Your task to perform on an android device: Search for Italian restaurants on Maps Image 0: 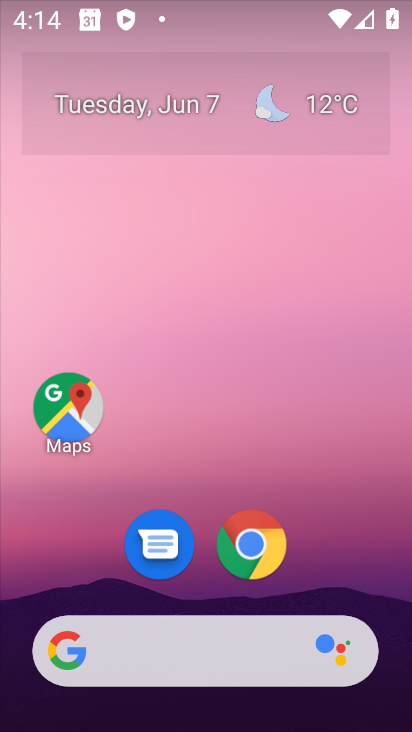
Step 0: click (52, 431)
Your task to perform on an android device: Search for Italian restaurants on Maps Image 1: 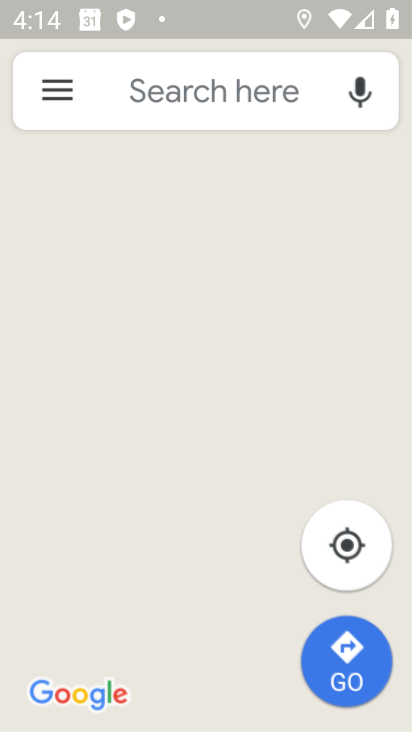
Step 1: click (188, 98)
Your task to perform on an android device: Search for Italian restaurants on Maps Image 2: 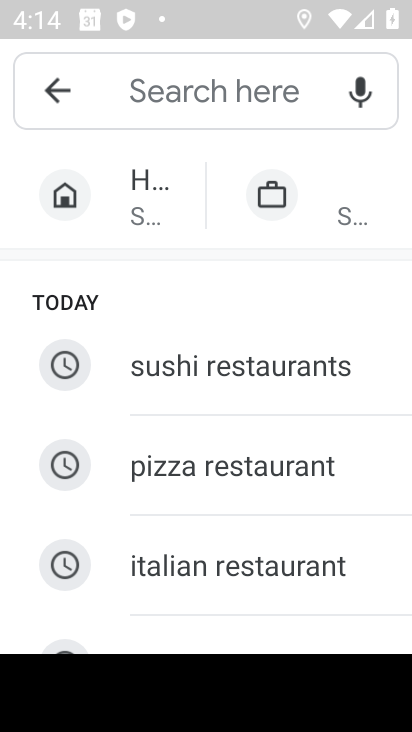
Step 2: click (143, 553)
Your task to perform on an android device: Search for Italian restaurants on Maps Image 3: 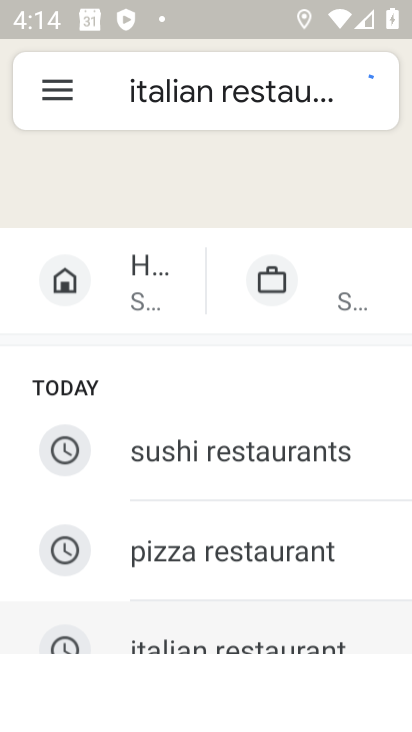
Step 3: task complete